Your task to perform on an android device: Search for the Nintendo Switch. Image 0: 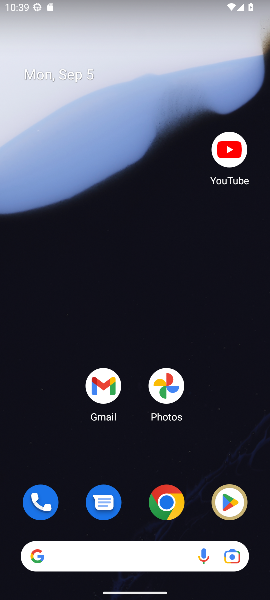
Step 0: drag from (251, 524) to (106, 30)
Your task to perform on an android device: Search for the Nintendo Switch. Image 1: 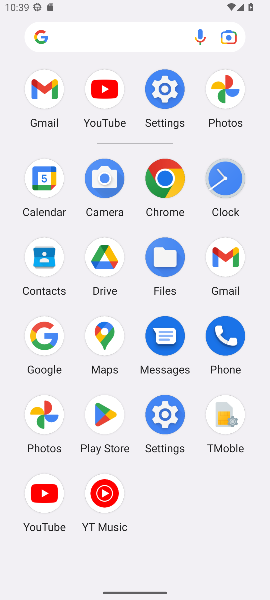
Step 1: click (45, 344)
Your task to perform on an android device: Search for the Nintendo Switch. Image 2: 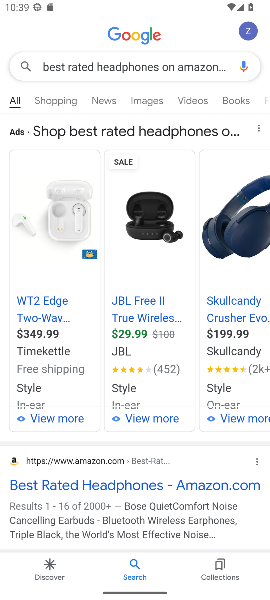
Step 2: press back button
Your task to perform on an android device: Search for the Nintendo Switch. Image 3: 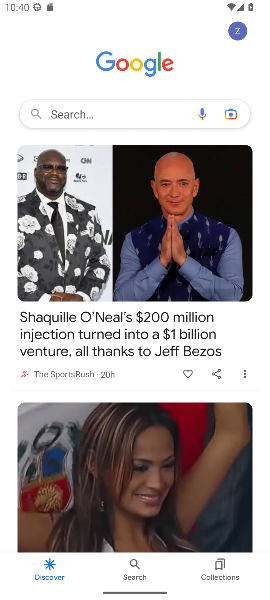
Step 3: click (99, 113)
Your task to perform on an android device: Search for the Nintendo Switch. Image 4: 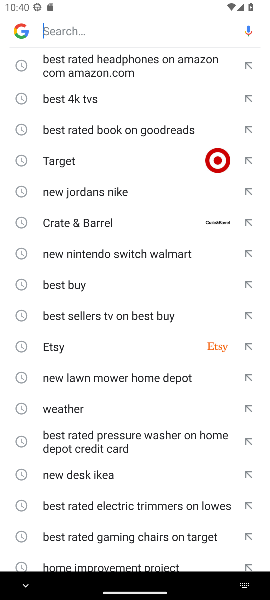
Step 4: type " Nintendo Switch"
Your task to perform on an android device: Search for the Nintendo Switch. Image 5: 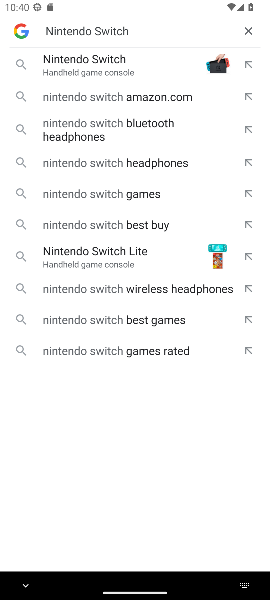
Step 5: click (66, 55)
Your task to perform on an android device: Search for the Nintendo Switch. Image 6: 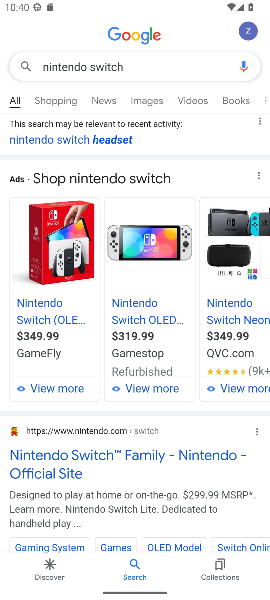
Step 6: task complete